Your task to perform on an android device: Search for the best rated Bluetooth earbuds on Ali express Image 0: 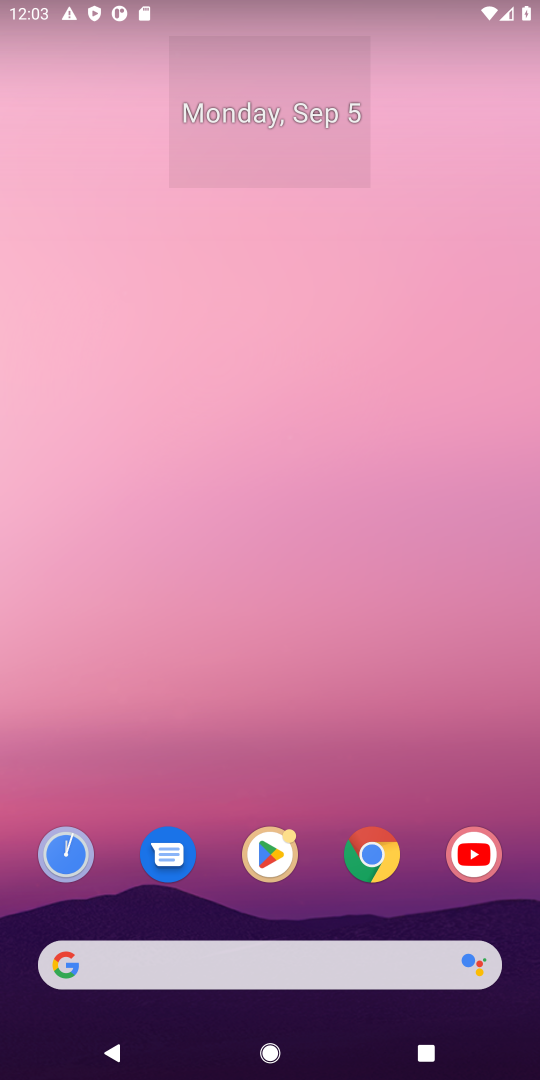
Step 0: click (263, 963)
Your task to perform on an android device: Search for the best rated Bluetooth earbuds on Ali express Image 1: 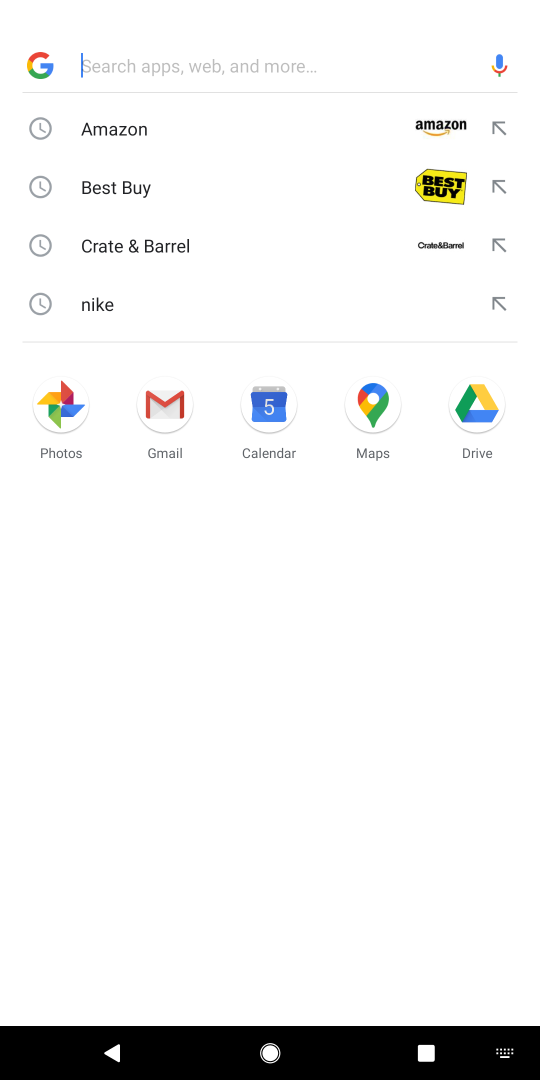
Step 1: press enter
Your task to perform on an android device: Search for the best rated Bluetooth earbuds on Ali express Image 2: 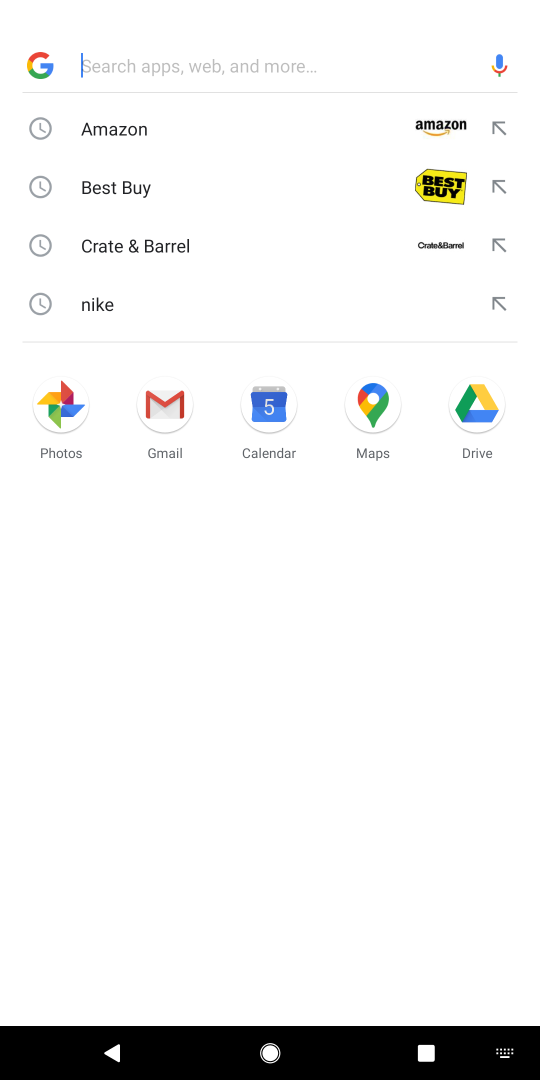
Step 2: type "ali express"
Your task to perform on an android device: Search for the best rated Bluetooth earbuds on Ali express Image 3: 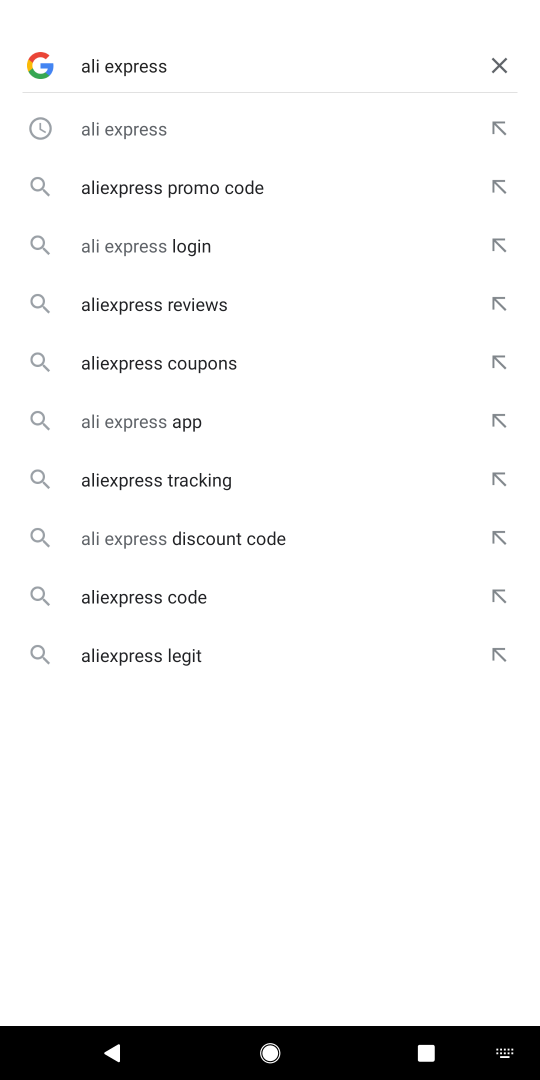
Step 3: click (171, 129)
Your task to perform on an android device: Search for the best rated Bluetooth earbuds on Ali express Image 4: 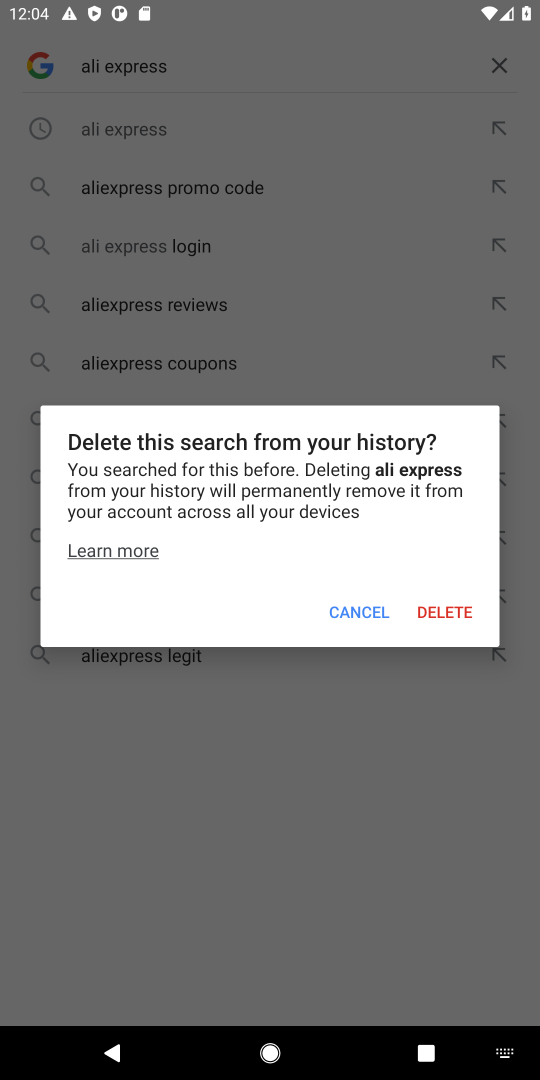
Step 4: click (351, 615)
Your task to perform on an android device: Search for the best rated Bluetooth earbuds on Ali express Image 5: 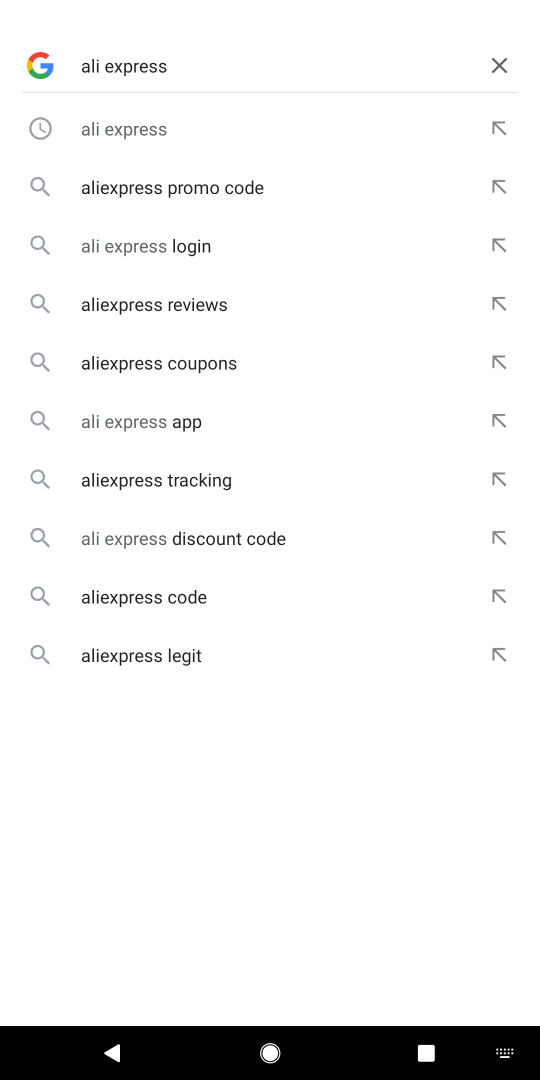
Step 5: click (134, 130)
Your task to perform on an android device: Search for the best rated Bluetooth earbuds on Ali express Image 6: 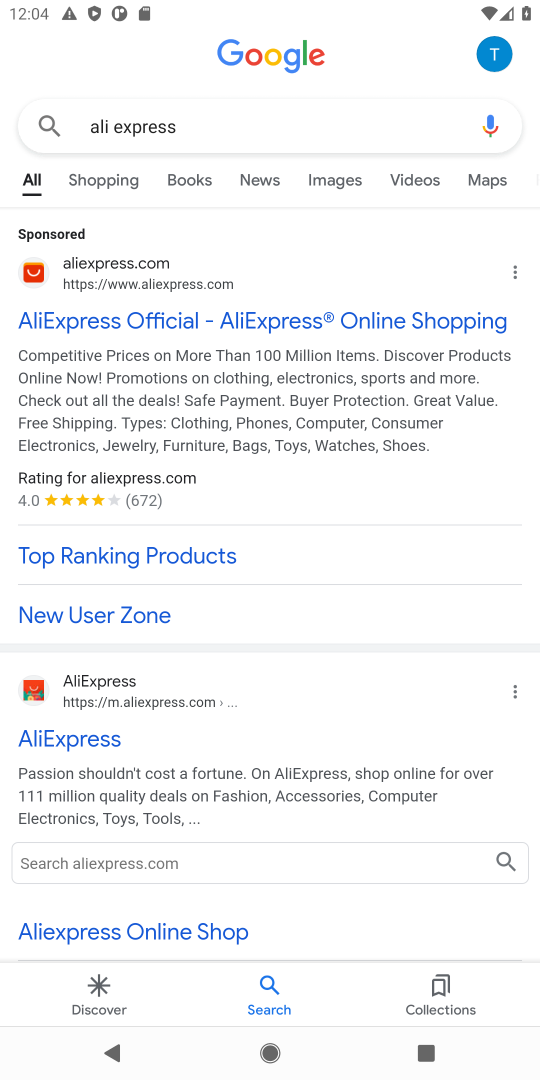
Step 6: click (260, 320)
Your task to perform on an android device: Search for the best rated Bluetooth earbuds on Ali express Image 7: 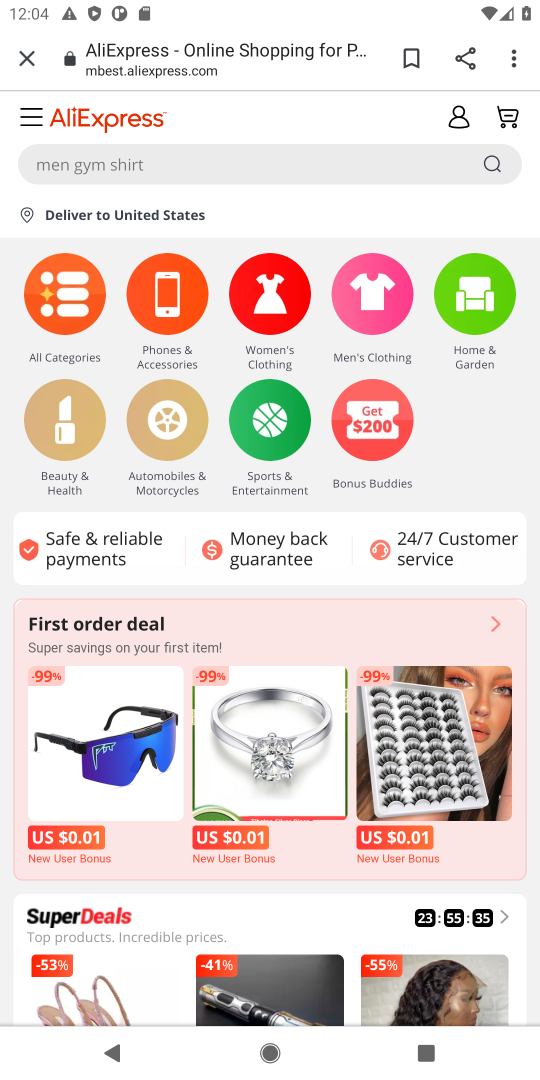
Step 7: click (185, 157)
Your task to perform on an android device: Search for the best rated Bluetooth earbuds on Ali express Image 8: 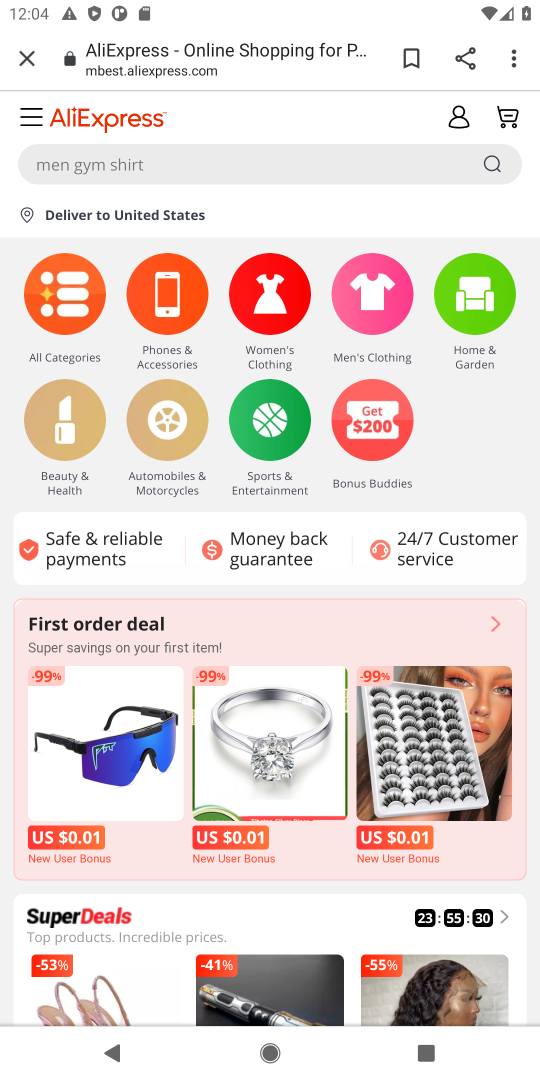
Step 8: click (85, 164)
Your task to perform on an android device: Search for the best rated Bluetooth earbuds on Ali express Image 9: 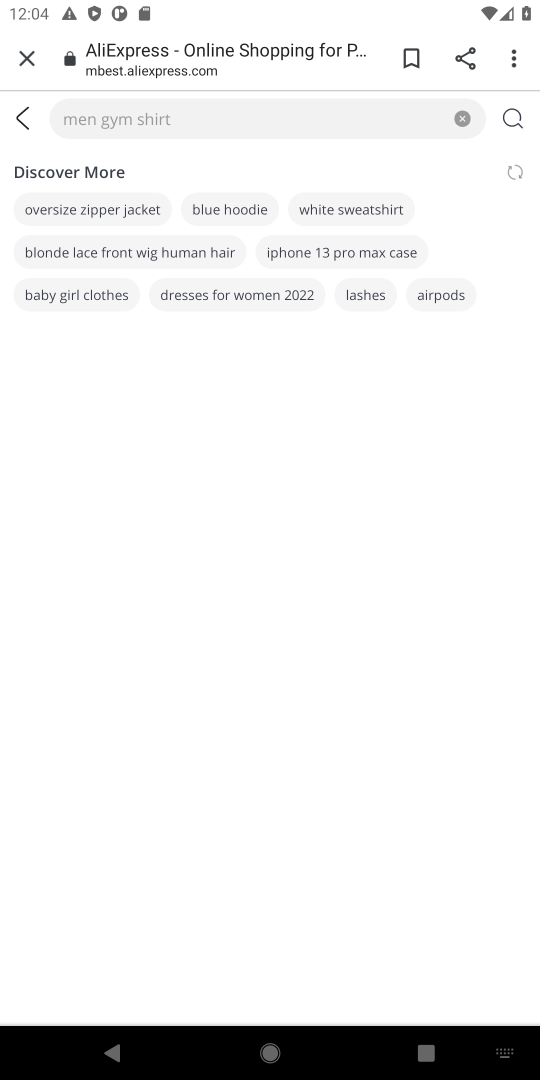
Step 9: type "best rated bluetooth earbuds"
Your task to perform on an android device: Search for the best rated Bluetooth earbuds on Ali express Image 10: 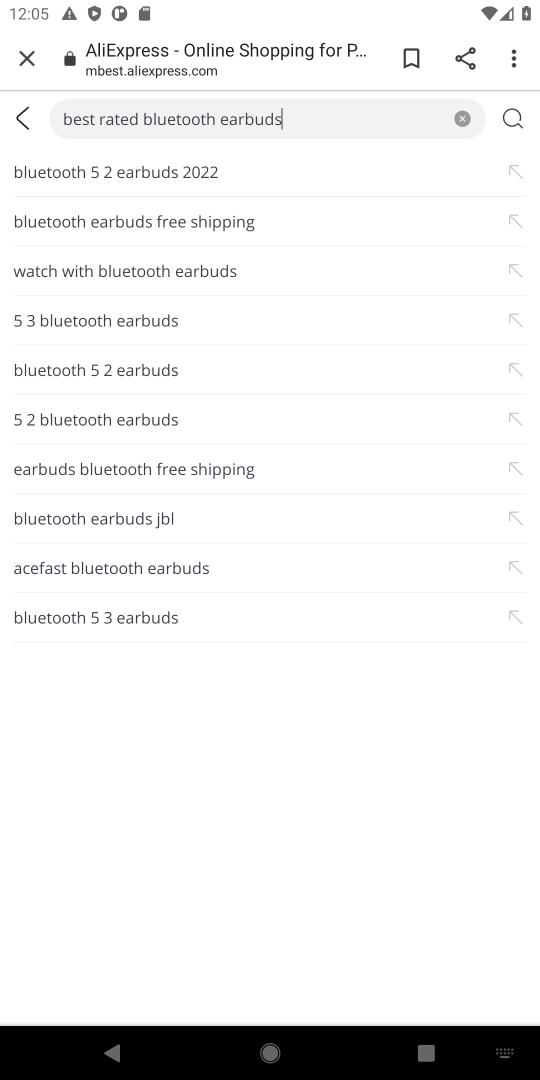
Step 10: click (509, 122)
Your task to perform on an android device: Search for the best rated Bluetooth earbuds on Ali express Image 11: 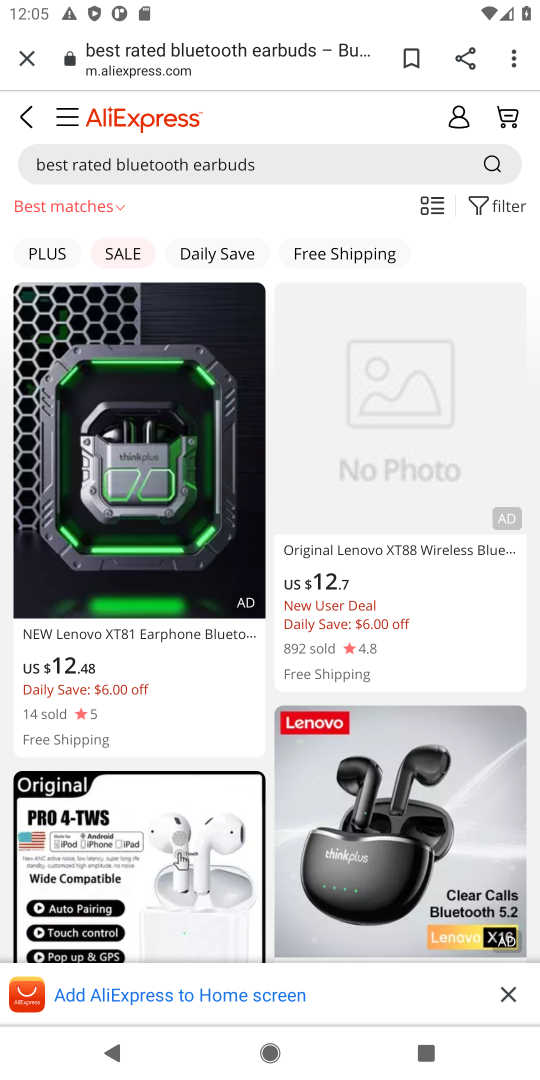
Step 11: task complete